Your task to perform on an android device: open app "YouTube Kids" (install if not already installed), go to login, and select forgot password Image 0: 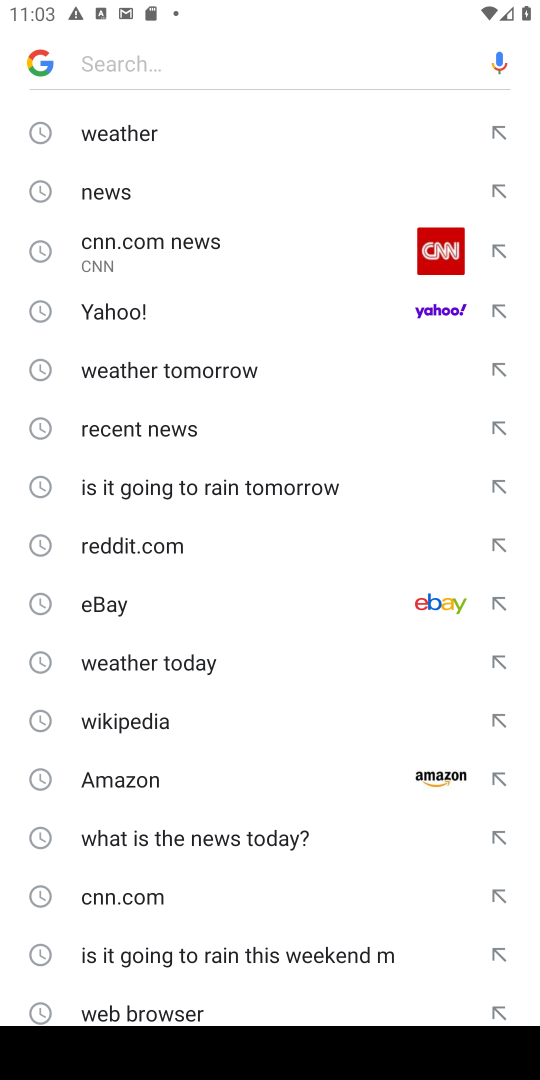
Step 0: press back button
Your task to perform on an android device: open app "YouTube Kids" (install if not already installed), go to login, and select forgot password Image 1: 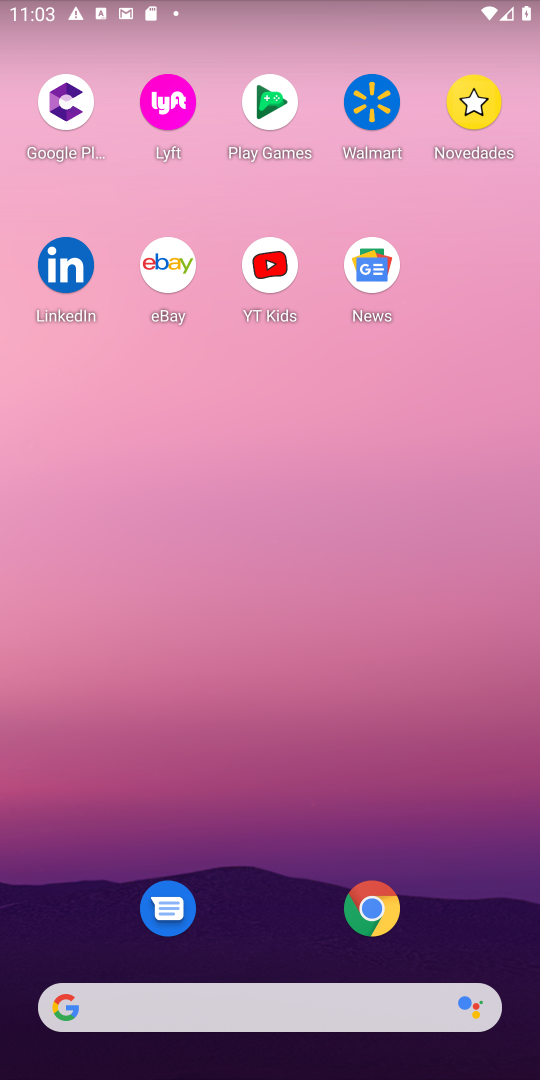
Step 1: drag from (286, 703) to (306, 258)
Your task to perform on an android device: open app "YouTube Kids" (install if not already installed), go to login, and select forgot password Image 2: 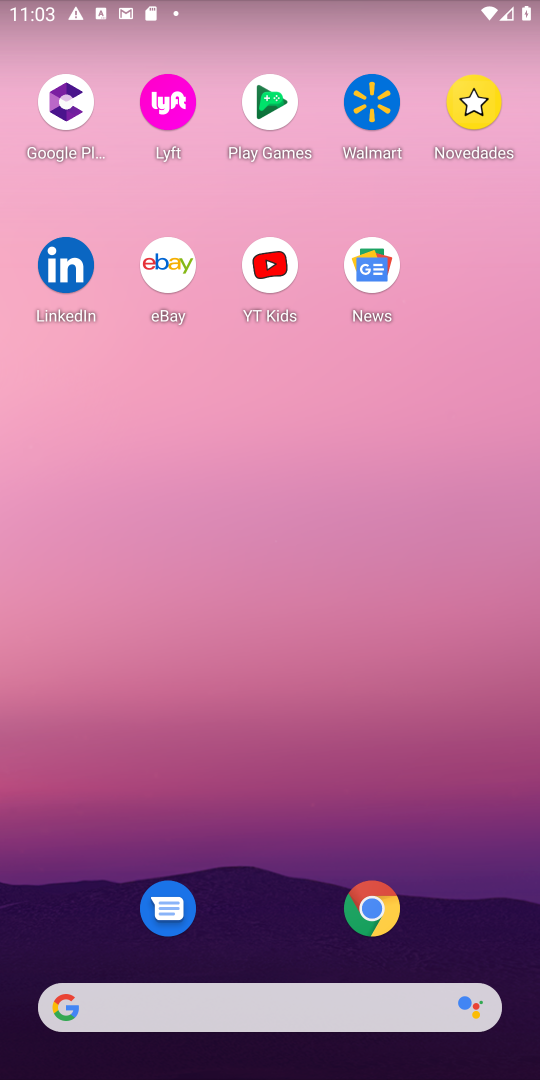
Step 2: drag from (331, 309) to (361, 120)
Your task to perform on an android device: open app "YouTube Kids" (install if not already installed), go to login, and select forgot password Image 3: 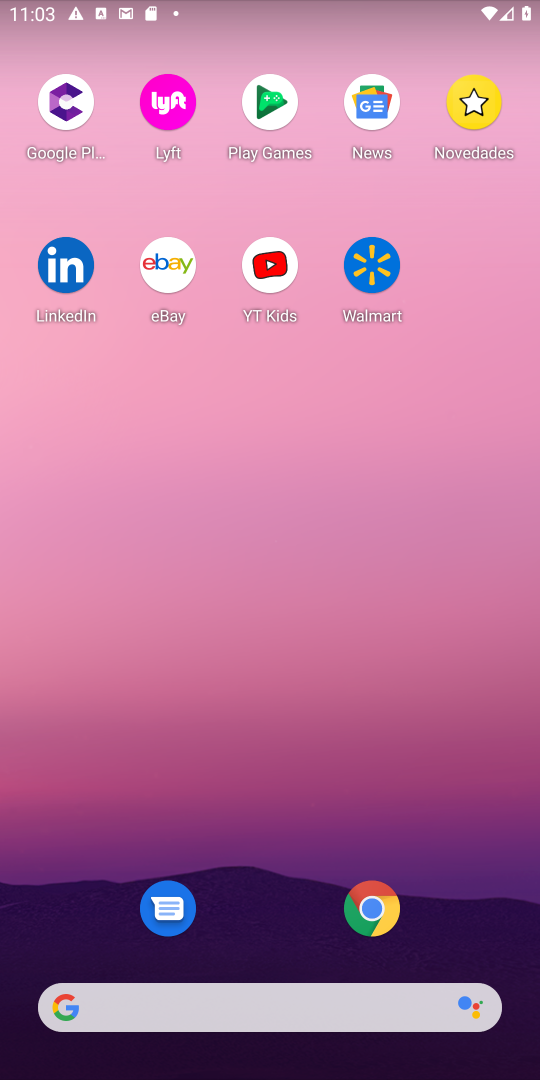
Step 3: drag from (213, 823) to (299, 106)
Your task to perform on an android device: open app "YouTube Kids" (install if not already installed), go to login, and select forgot password Image 4: 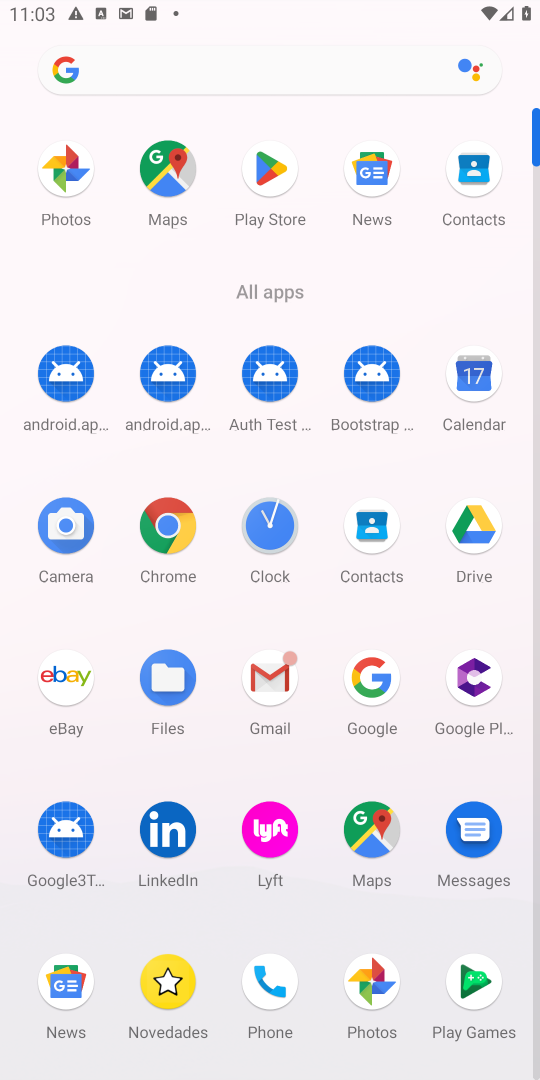
Step 4: click (270, 158)
Your task to perform on an android device: open app "YouTube Kids" (install if not already installed), go to login, and select forgot password Image 5: 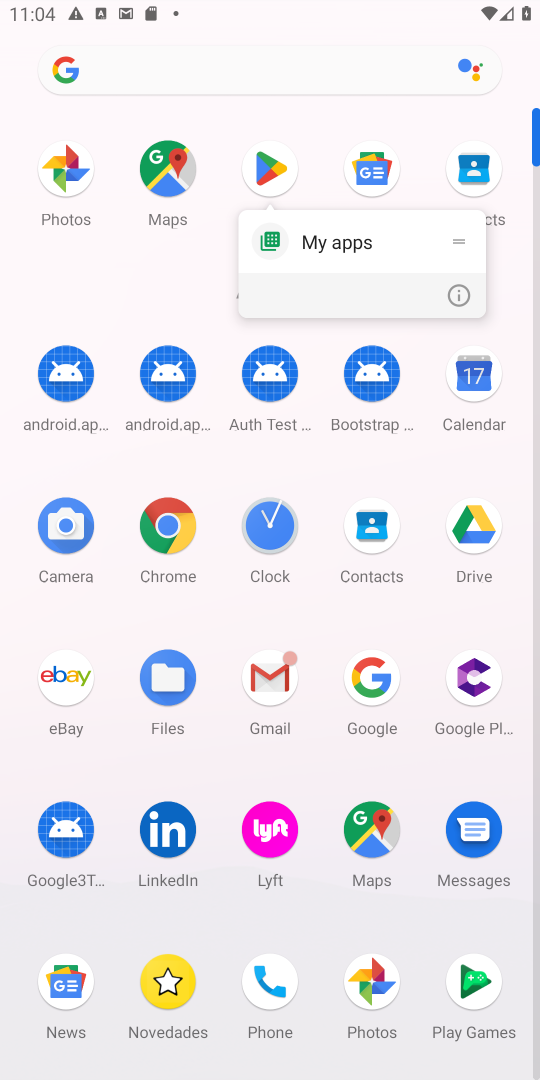
Step 5: click (271, 168)
Your task to perform on an android device: open app "YouTube Kids" (install if not already installed), go to login, and select forgot password Image 6: 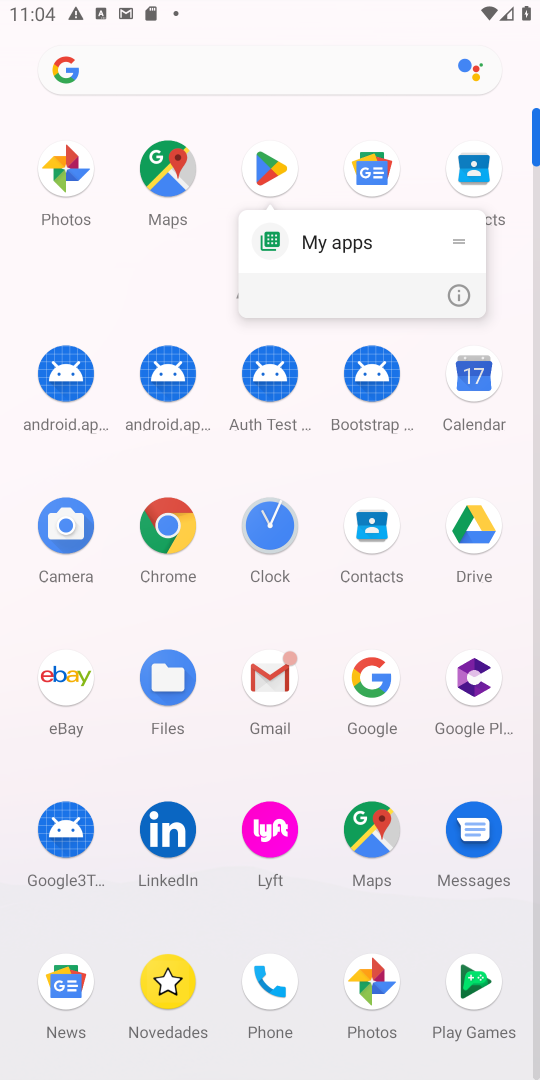
Step 6: click (246, 153)
Your task to perform on an android device: open app "YouTube Kids" (install if not already installed), go to login, and select forgot password Image 7: 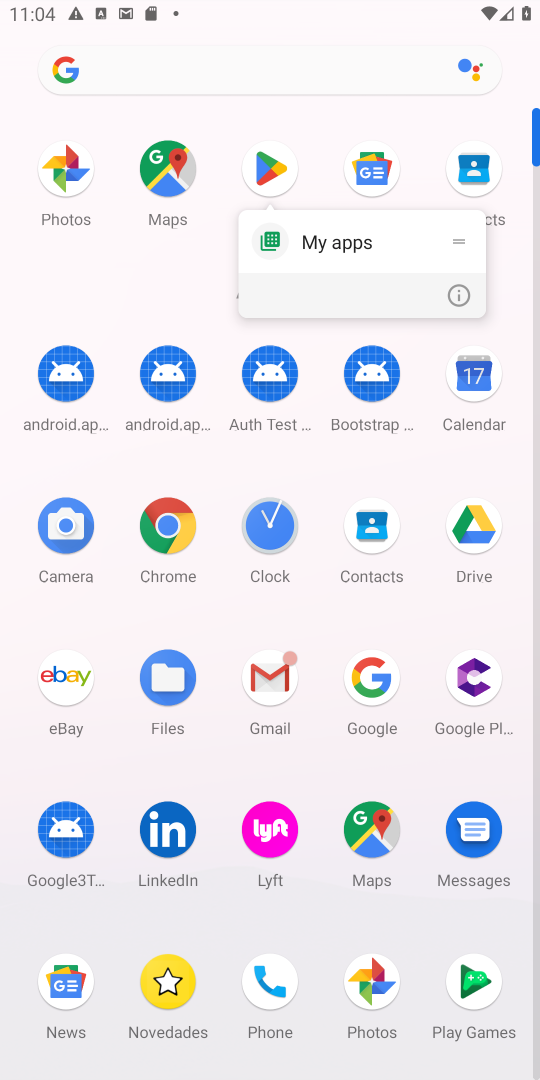
Step 7: click (261, 179)
Your task to perform on an android device: open app "YouTube Kids" (install if not already installed), go to login, and select forgot password Image 8: 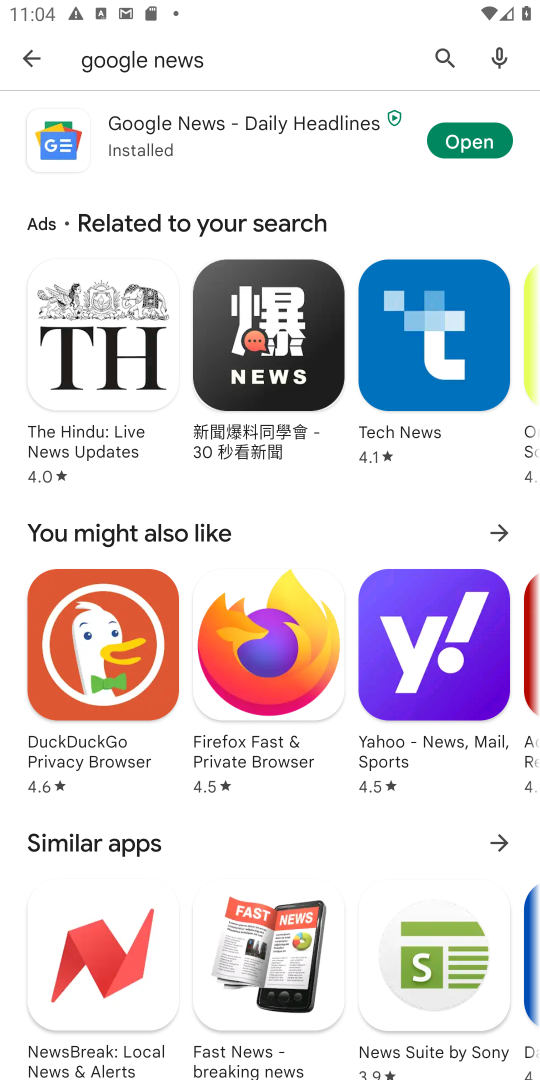
Step 8: click (428, 63)
Your task to perform on an android device: open app "YouTube Kids" (install if not already installed), go to login, and select forgot password Image 9: 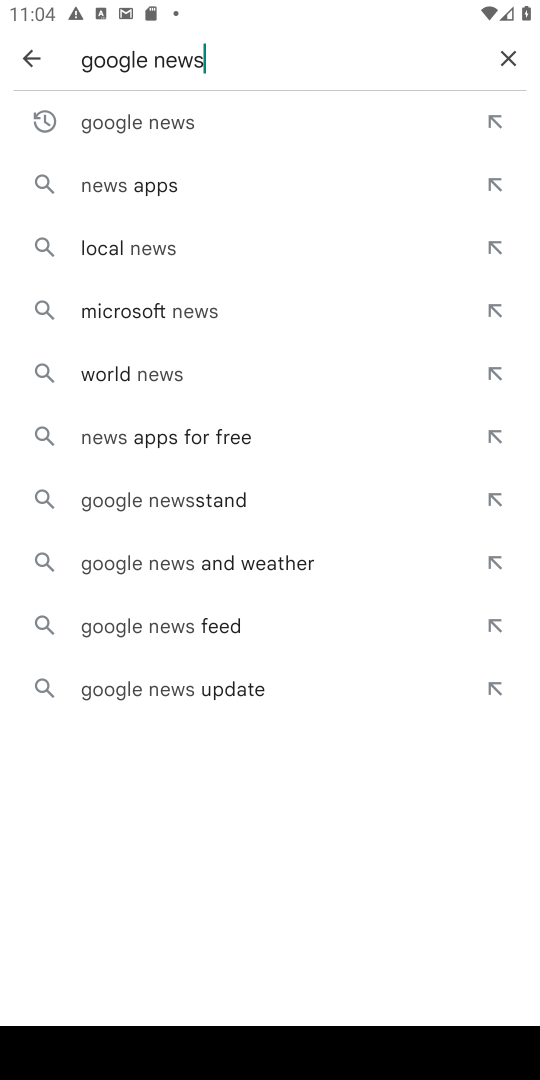
Step 9: click (521, 50)
Your task to perform on an android device: open app "YouTube Kids" (install if not already installed), go to login, and select forgot password Image 10: 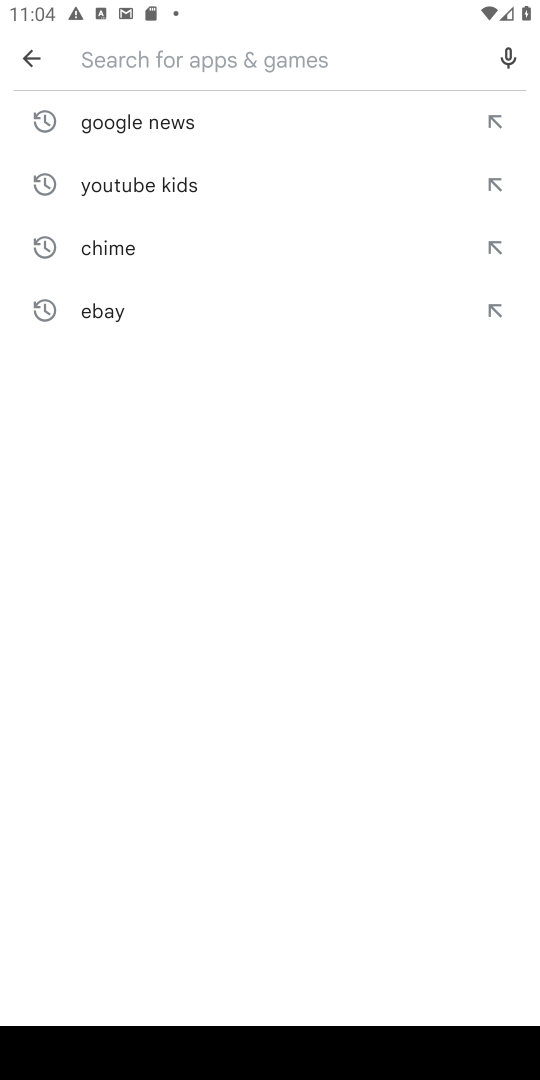
Step 10: click (137, 51)
Your task to perform on an android device: open app "YouTube Kids" (install if not already installed), go to login, and select forgot password Image 11: 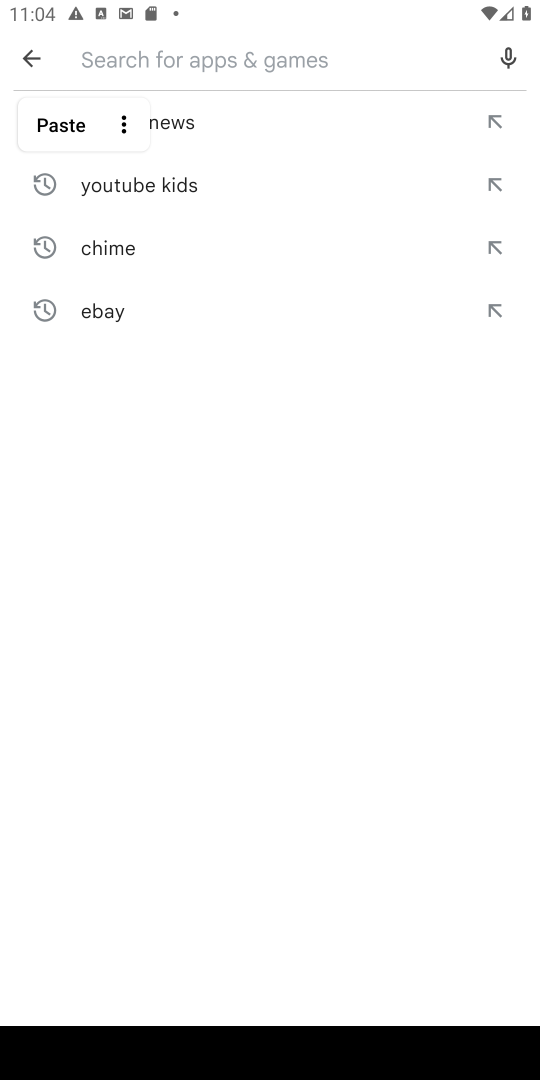
Step 11: type "you"
Your task to perform on an android device: open app "YouTube Kids" (install if not already installed), go to login, and select forgot password Image 12: 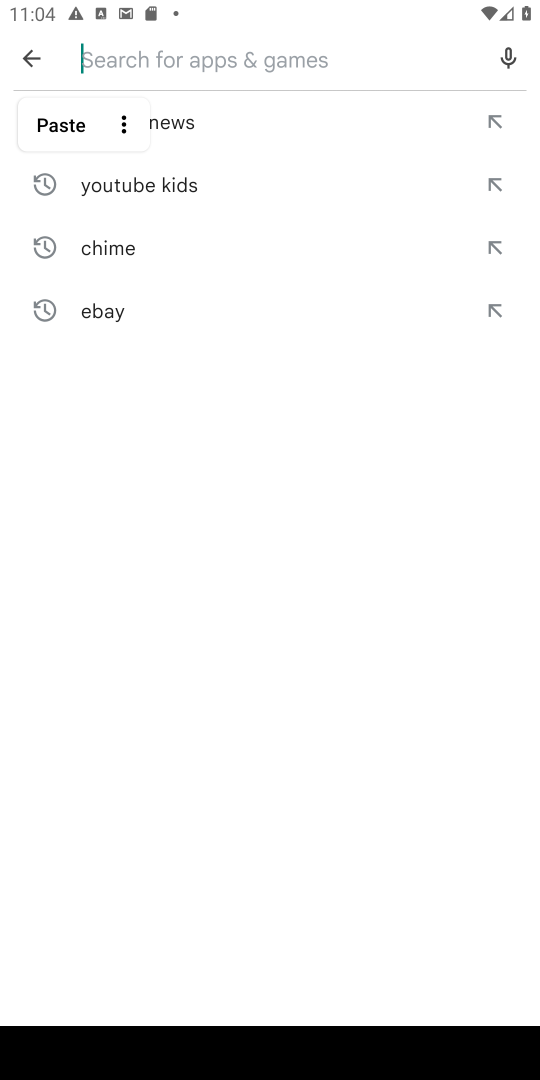
Step 12: click (135, 197)
Your task to perform on an android device: open app "YouTube Kids" (install if not already installed), go to login, and select forgot password Image 13: 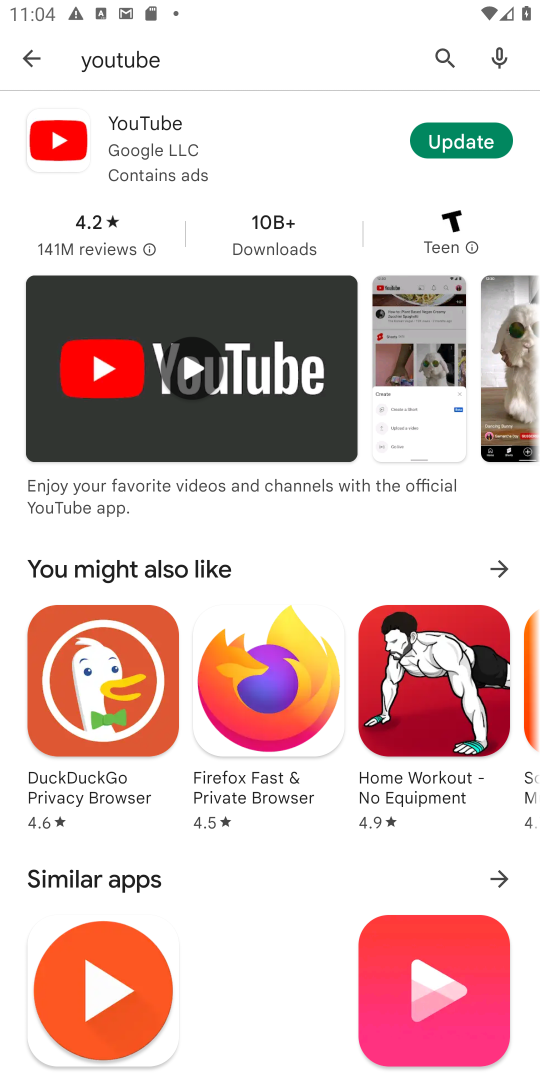
Step 13: press back button
Your task to perform on an android device: open app "YouTube Kids" (install if not already installed), go to login, and select forgot password Image 14: 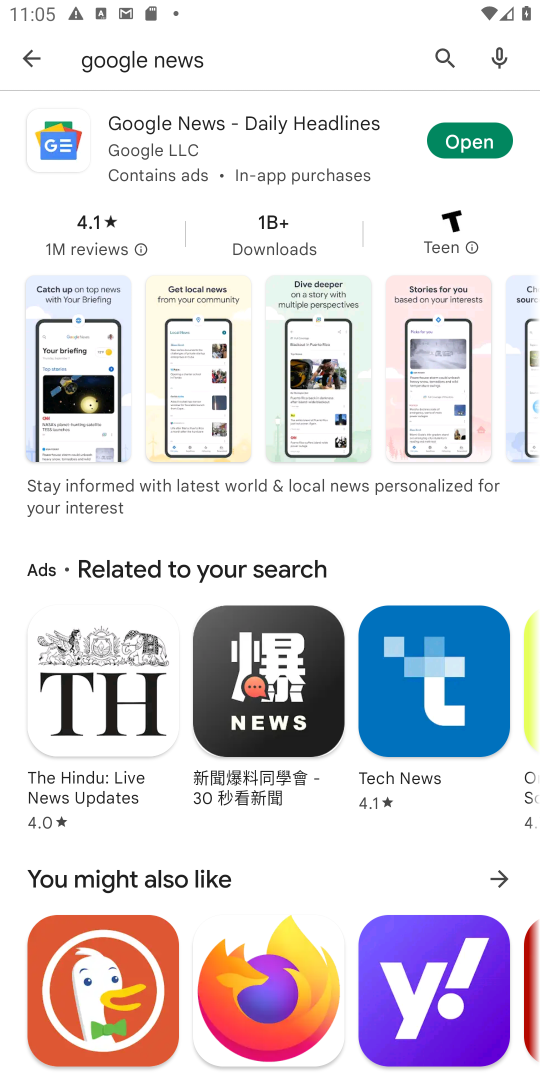
Step 14: press back button
Your task to perform on an android device: open app "YouTube Kids" (install if not already installed), go to login, and select forgot password Image 15: 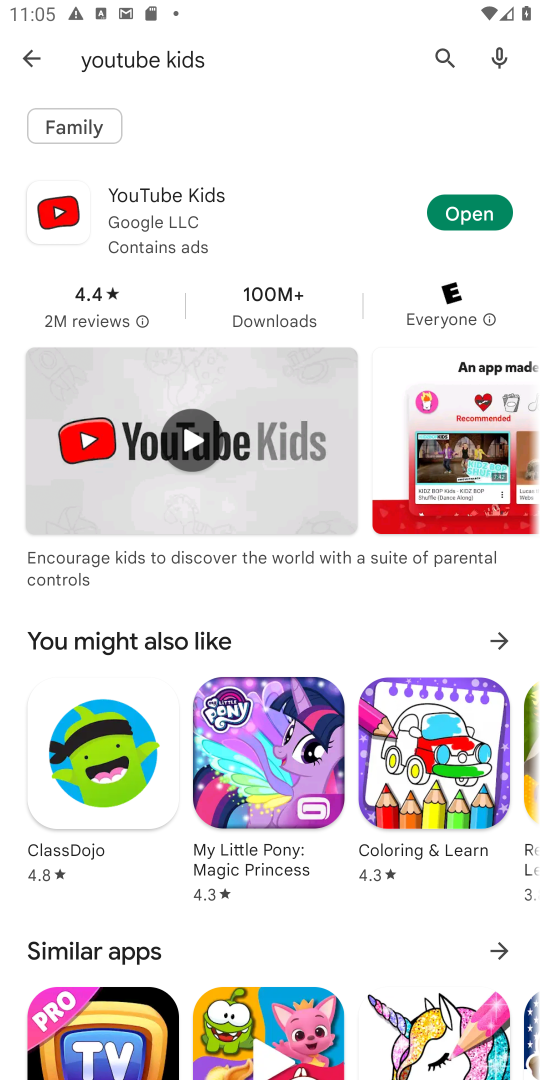
Step 15: press back button
Your task to perform on an android device: open app "YouTube Kids" (install if not already installed), go to login, and select forgot password Image 16: 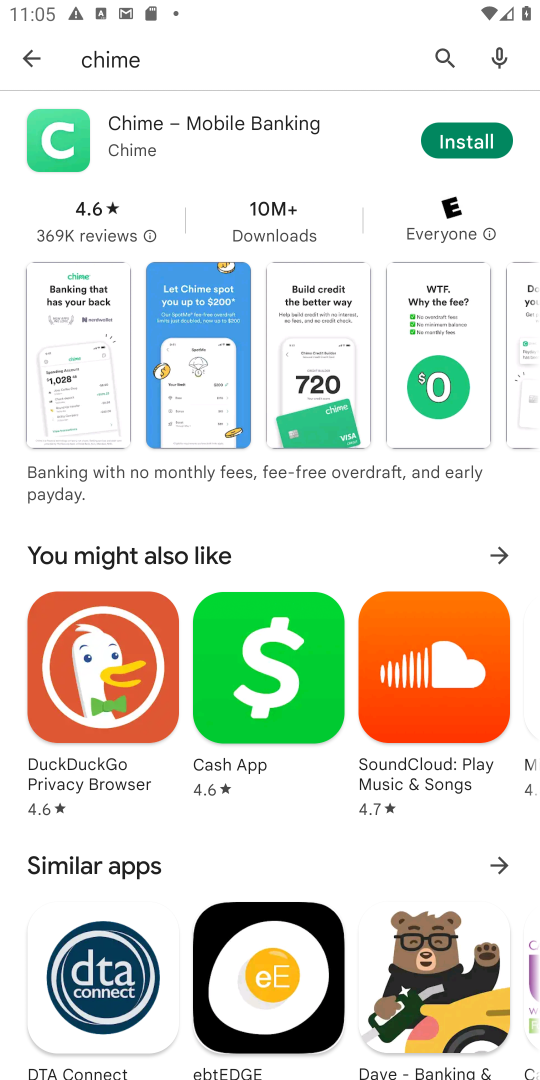
Step 16: click (435, 50)
Your task to perform on an android device: open app "YouTube Kids" (install if not already installed), go to login, and select forgot password Image 17: 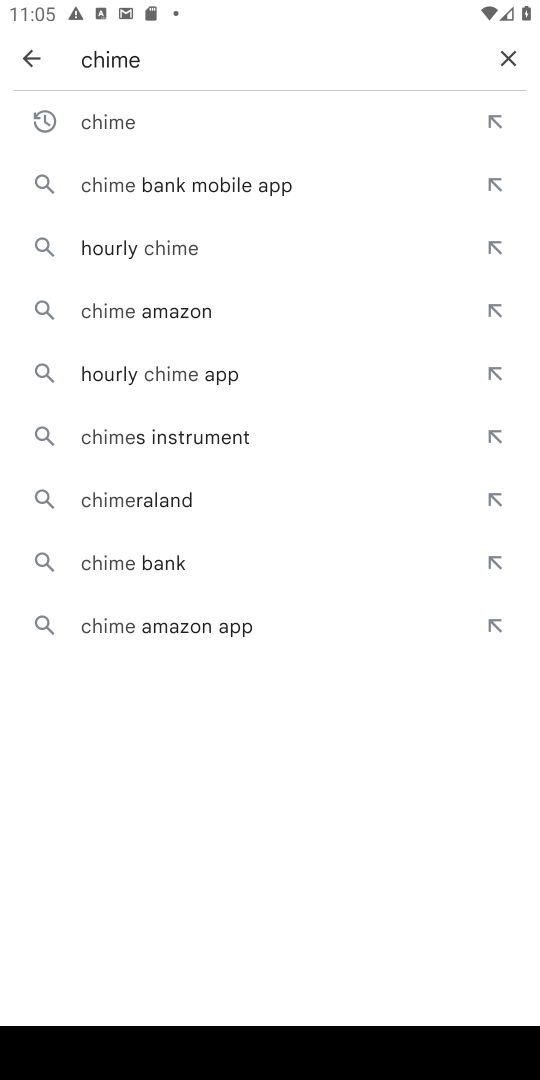
Step 17: click (500, 54)
Your task to perform on an android device: open app "YouTube Kids" (install if not already installed), go to login, and select forgot password Image 18: 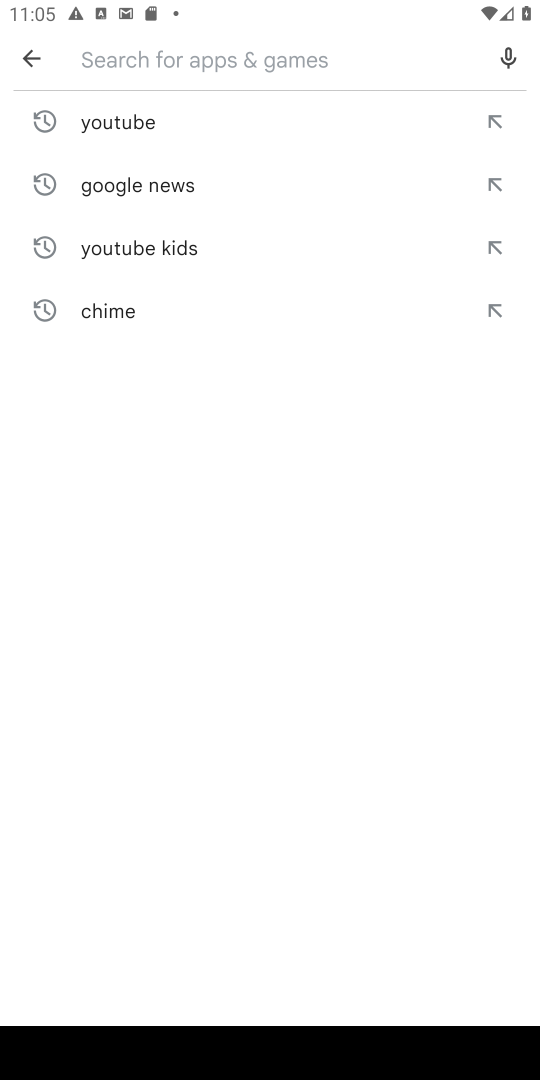
Step 18: click (127, 234)
Your task to perform on an android device: open app "YouTube Kids" (install if not already installed), go to login, and select forgot password Image 19: 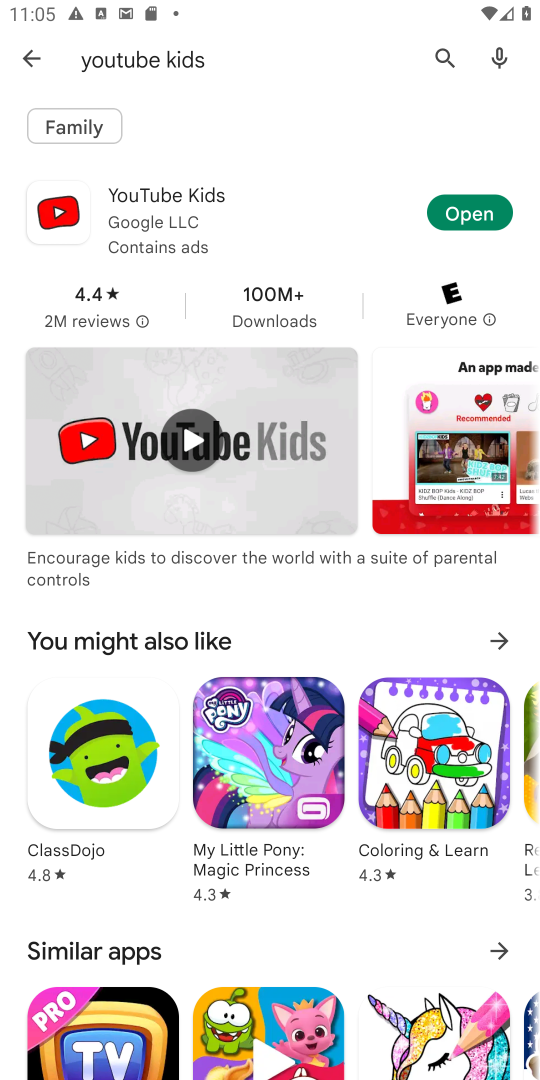
Step 19: click (472, 209)
Your task to perform on an android device: open app "YouTube Kids" (install if not already installed), go to login, and select forgot password Image 20: 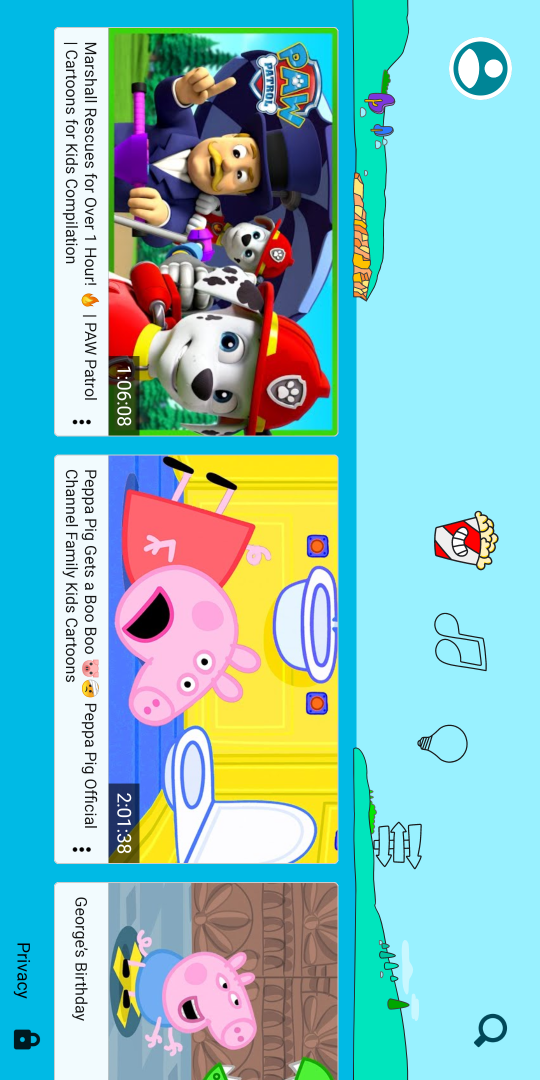
Step 20: task complete